Your task to perform on an android device: turn on the 24-hour format for clock Image 0: 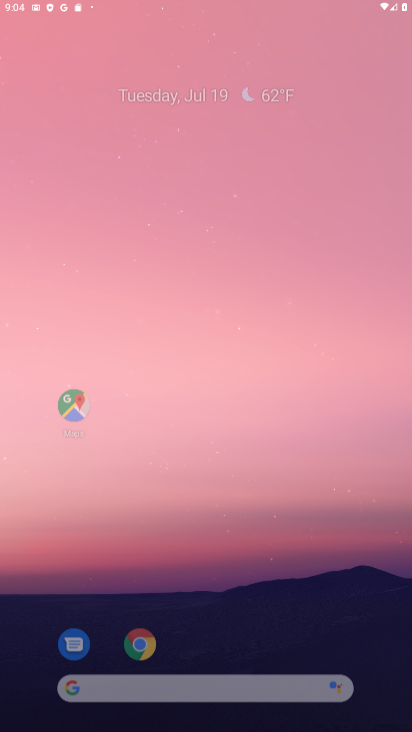
Step 0: press home button
Your task to perform on an android device: turn on the 24-hour format for clock Image 1: 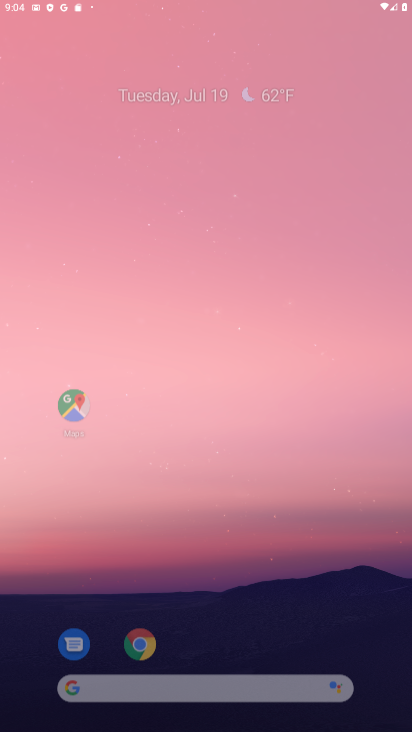
Step 1: drag from (324, 500) to (328, 684)
Your task to perform on an android device: turn on the 24-hour format for clock Image 2: 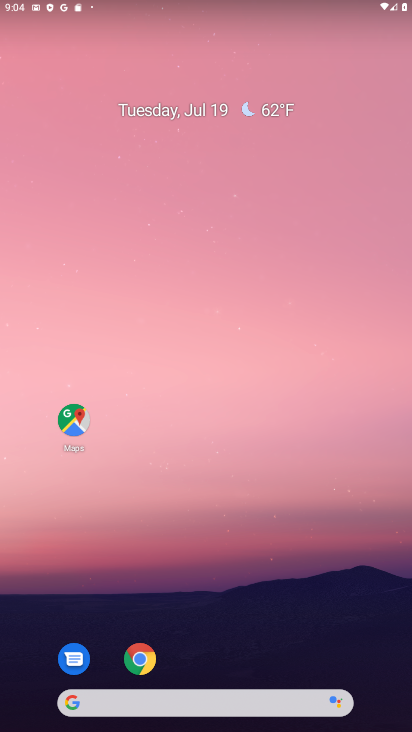
Step 2: drag from (328, 677) to (141, 158)
Your task to perform on an android device: turn on the 24-hour format for clock Image 3: 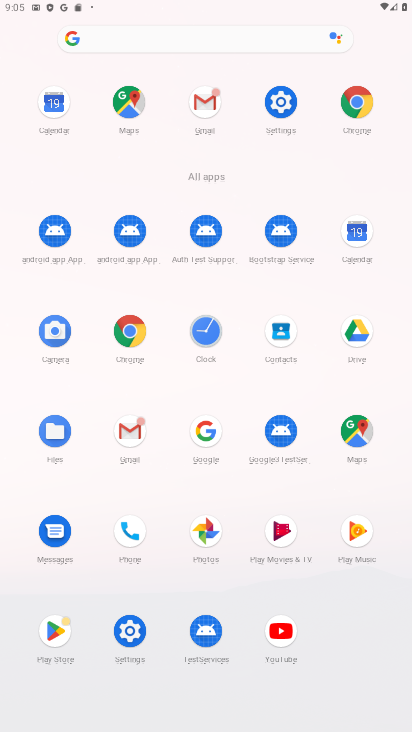
Step 3: click (134, 626)
Your task to perform on an android device: turn on the 24-hour format for clock Image 4: 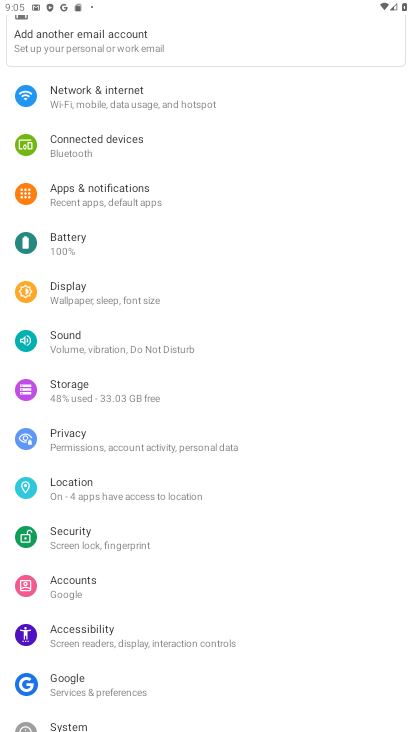
Step 4: press home button
Your task to perform on an android device: turn on the 24-hour format for clock Image 5: 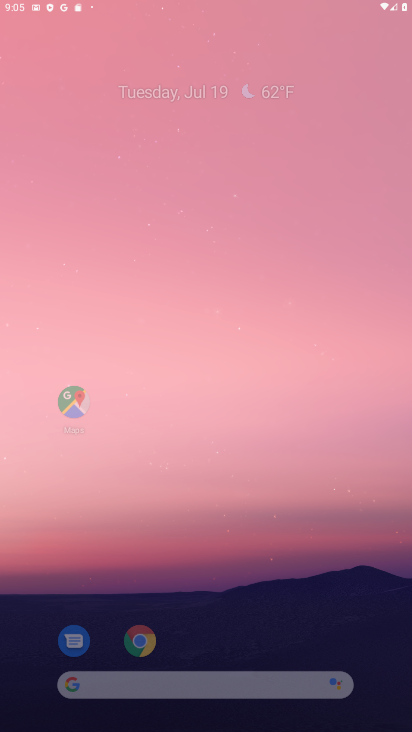
Step 5: drag from (258, 674) to (304, 127)
Your task to perform on an android device: turn on the 24-hour format for clock Image 6: 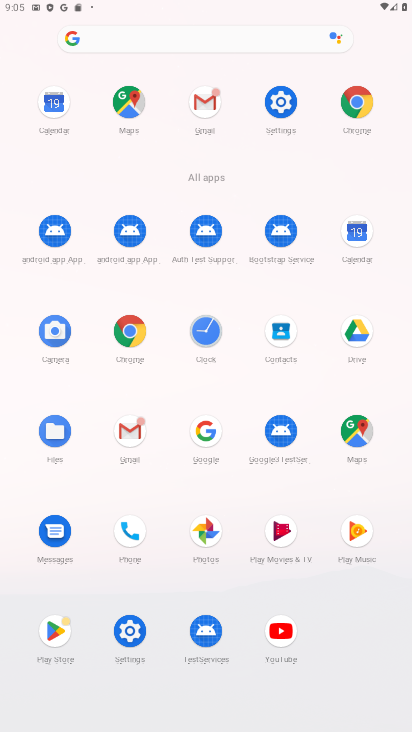
Step 6: click (206, 348)
Your task to perform on an android device: turn on the 24-hour format for clock Image 7: 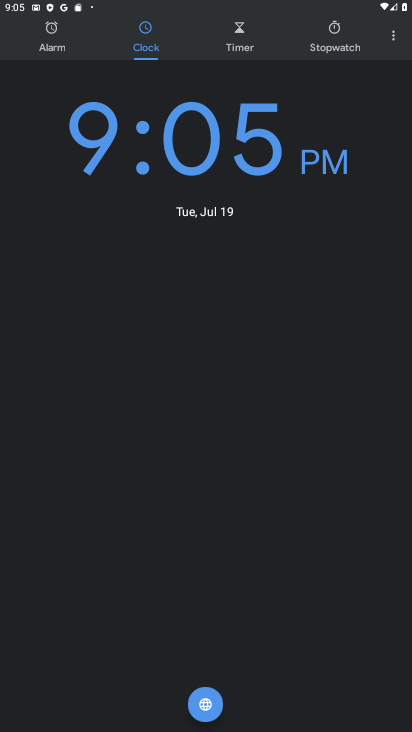
Step 7: click (391, 43)
Your task to perform on an android device: turn on the 24-hour format for clock Image 8: 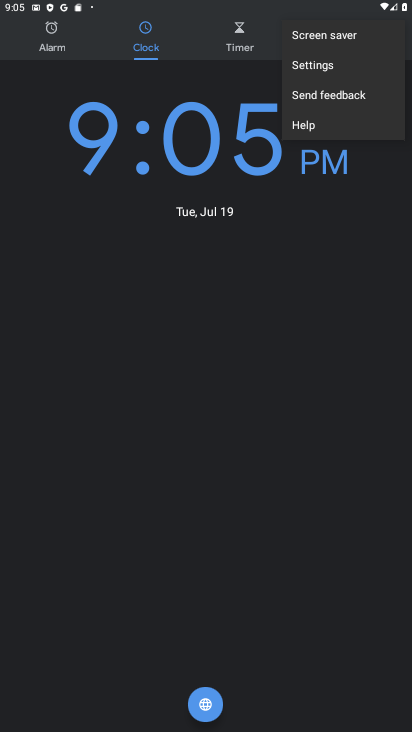
Step 8: click (309, 65)
Your task to perform on an android device: turn on the 24-hour format for clock Image 9: 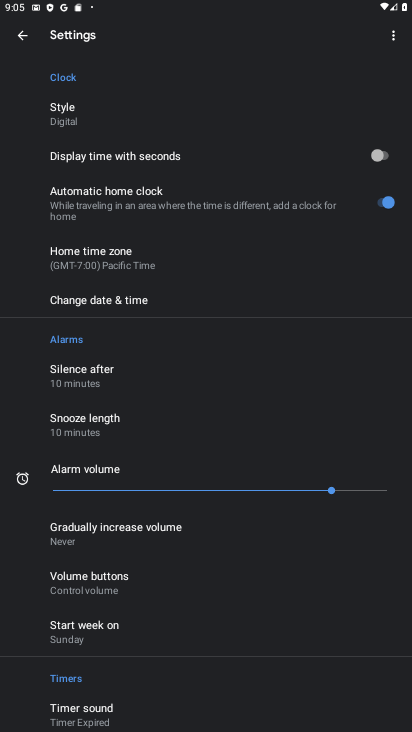
Step 9: click (128, 309)
Your task to perform on an android device: turn on the 24-hour format for clock Image 10: 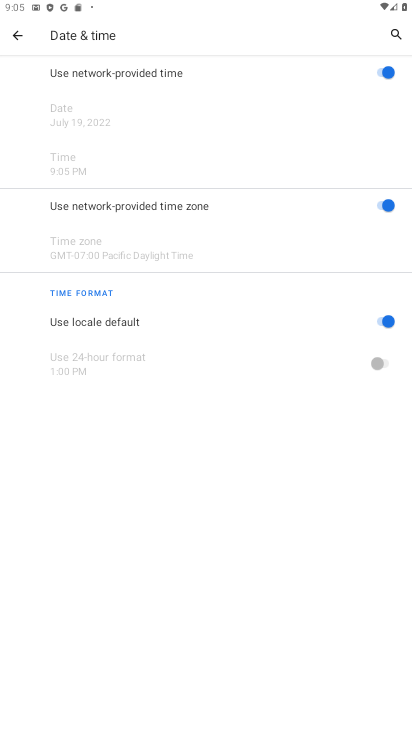
Step 10: click (122, 329)
Your task to perform on an android device: turn on the 24-hour format for clock Image 11: 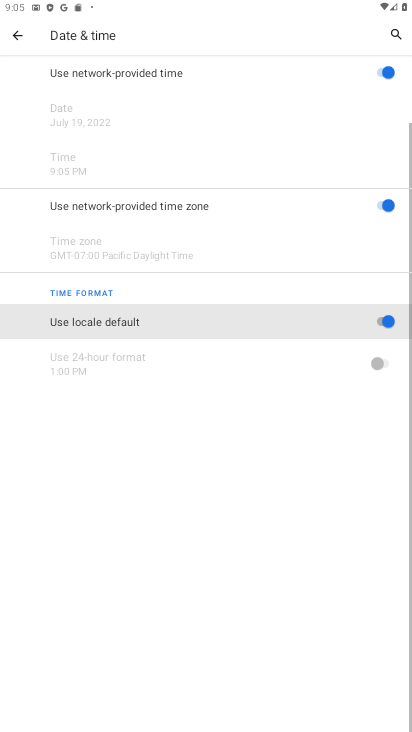
Step 11: click (122, 370)
Your task to perform on an android device: turn on the 24-hour format for clock Image 12: 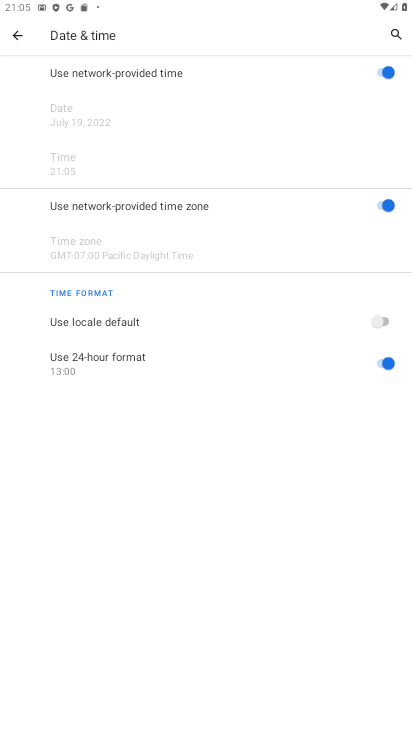
Step 12: task complete